Your task to perform on an android device: Empty the shopping cart on bestbuy. Search for "energizer triple a" on bestbuy, select the first entry, add it to the cart, then select checkout. Image 0: 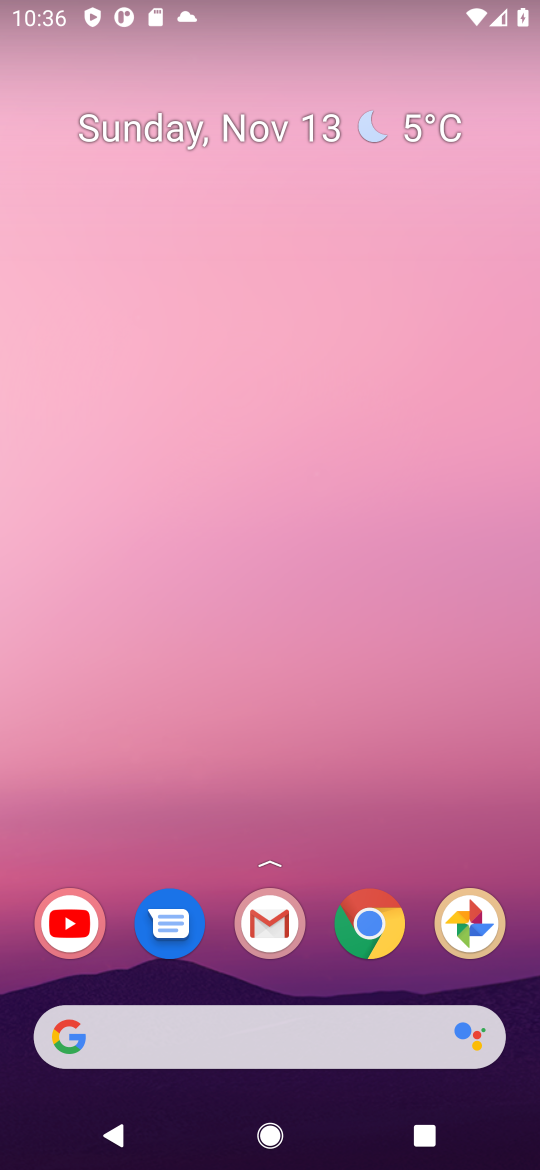
Step 0: click (384, 928)
Your task to perform on an android device: Empty the shopping cart on bestbuy. Search for "energizer triple a" on bestbuy, select the first entry, add it to the cart, then select checkout. Image 1: 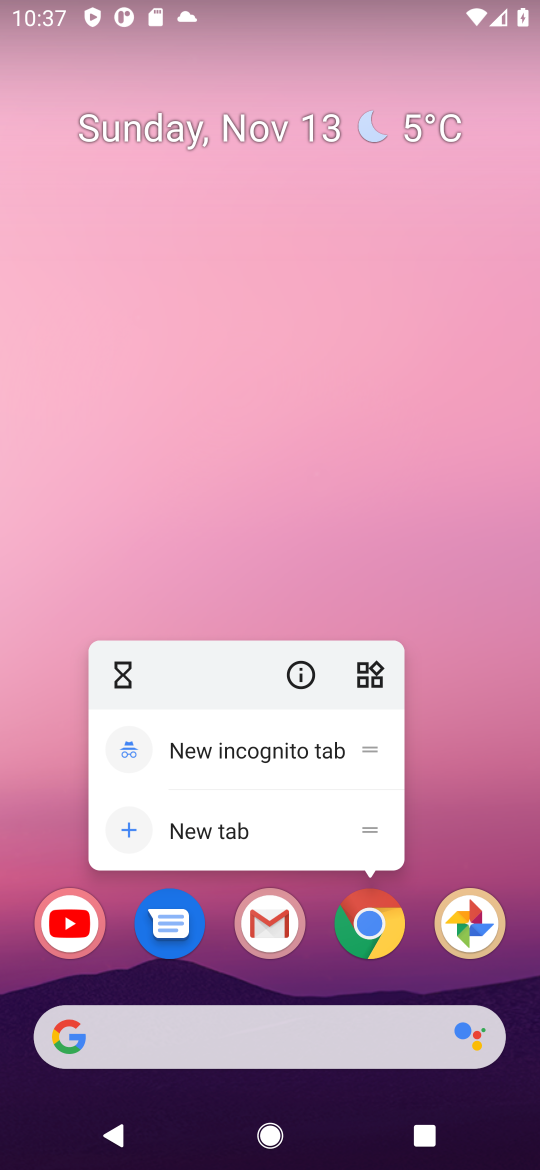
Step 1: click (359, 935)
Your task to perform on an android device: Empty the shopping cart on bestbuy. Search for "energizer triple a" on bestbuy, select the first entry, add it to the cart, then select checkout. Image 2: 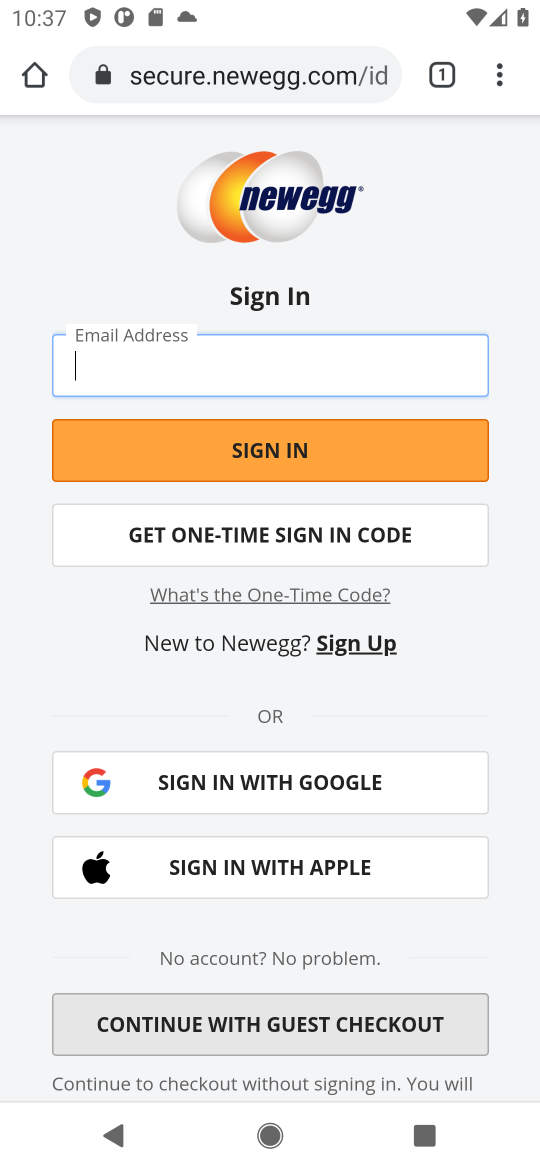
Step 2: click (250, 92)
Your task to perform on an android device: Empty the shopping cart on bestbuy. Search for "energizer triple a" on bestbuy, select the first entry, add it to the cart, then select checkout. Image 3: 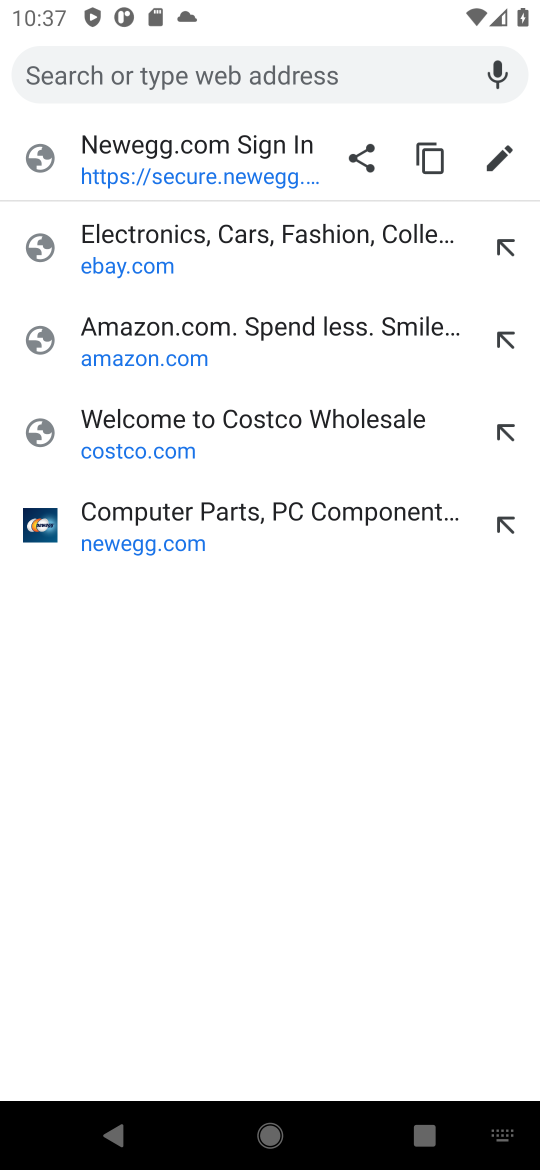
Step 3: type "bestbuy"
Your task to perform on an android device: Empty the shopping cart on bestbuy. Search for "energizer triple a" on bestbuy, select the first entry, add it to the cart, then select checkout. Image 4: 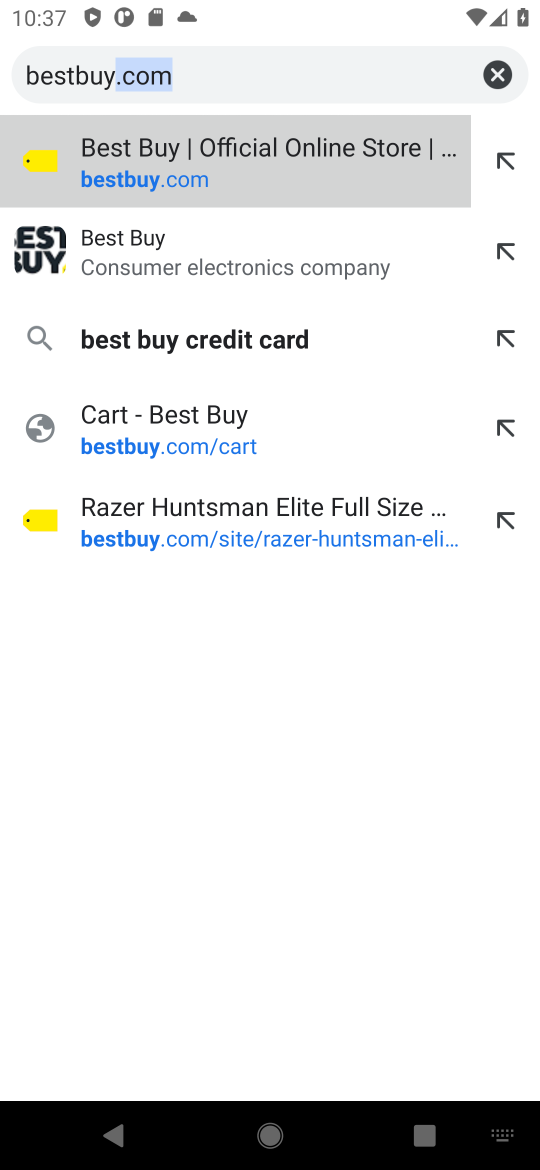
Step 4: click (181, 174)
Your task to perform on an android device: Empty the shopping cart on bestbuy. Search for "energizer triple a" on bestbuy, select the first entry, add it to the cart, then select checkout. Image 5: 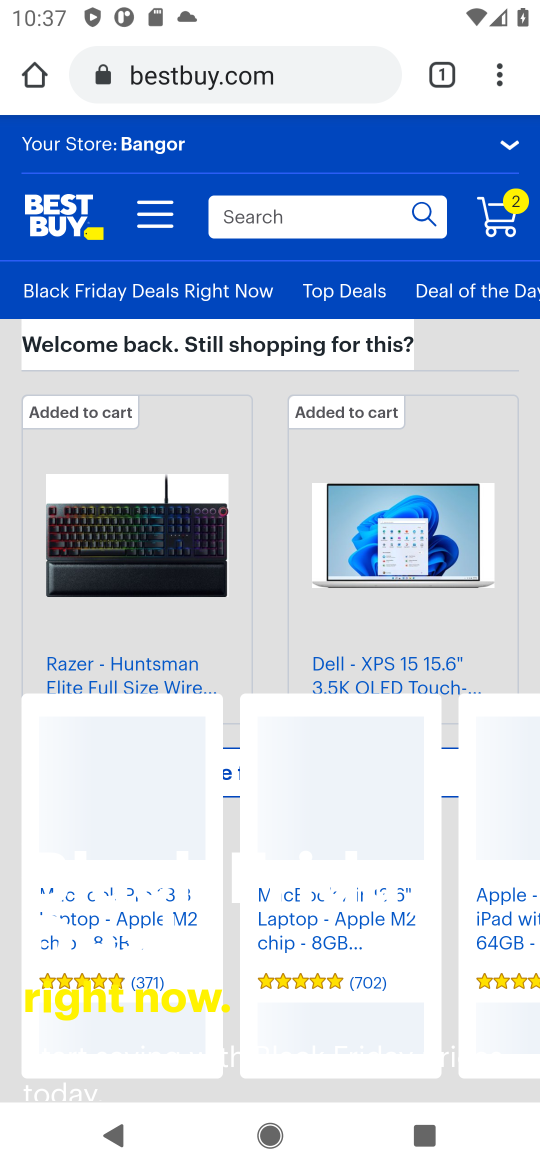
Step 5: click (509, 226)
Your task to perform on an android device: Empty the shopping cart on bestbuy. Search for "energizer triple a" on bestbuy, select the first entry, add it to the cart, then select checkout. Image 6: 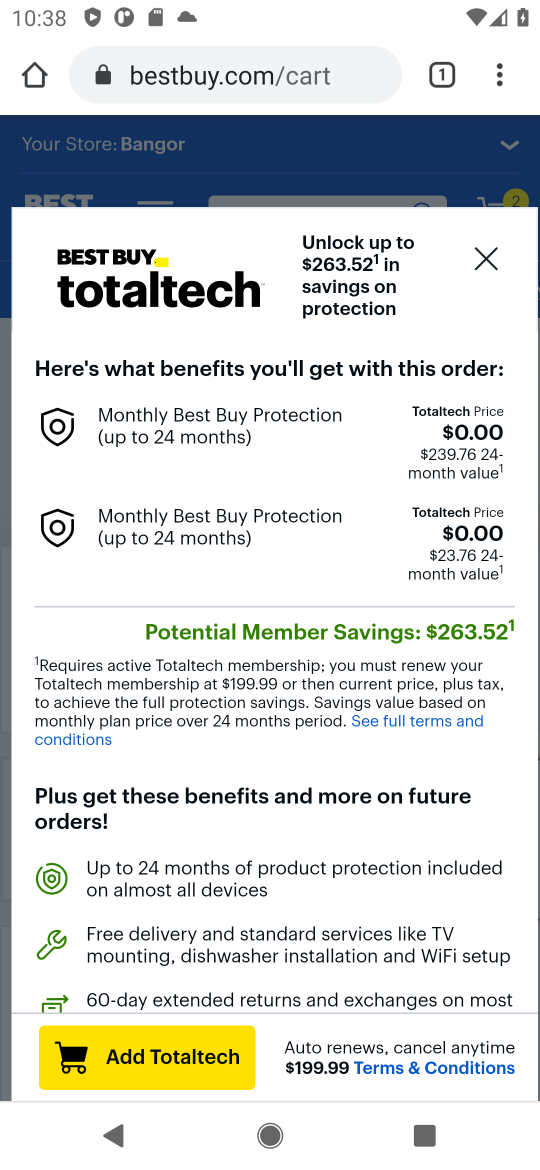
Step 6: click (146, 1058)
Your task to perform on an android device: Empty the shopping cart on bestbuy. Search for "energizer triple a" on bestbuy, select the first entry, add it to the cart, then select checkout. Image 7: 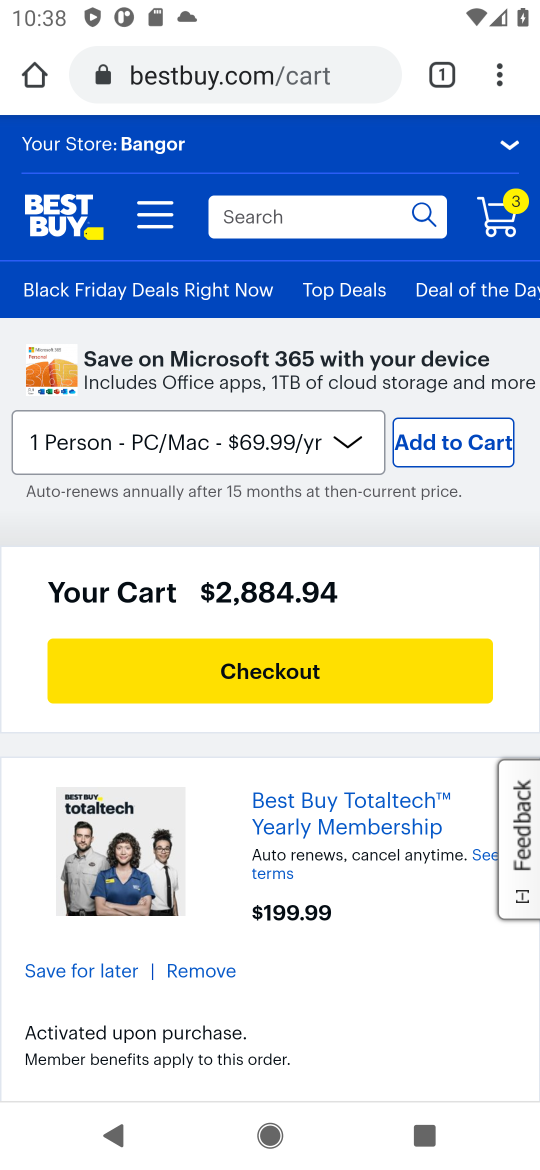
Step 7: click (498, 231)
Your task to perform on an android device: Empty the shopping cart on bestbuy. Search for "energizer triple a" on bestbuy, select the first entry, add it to the cart, then select checkout. Image 8: 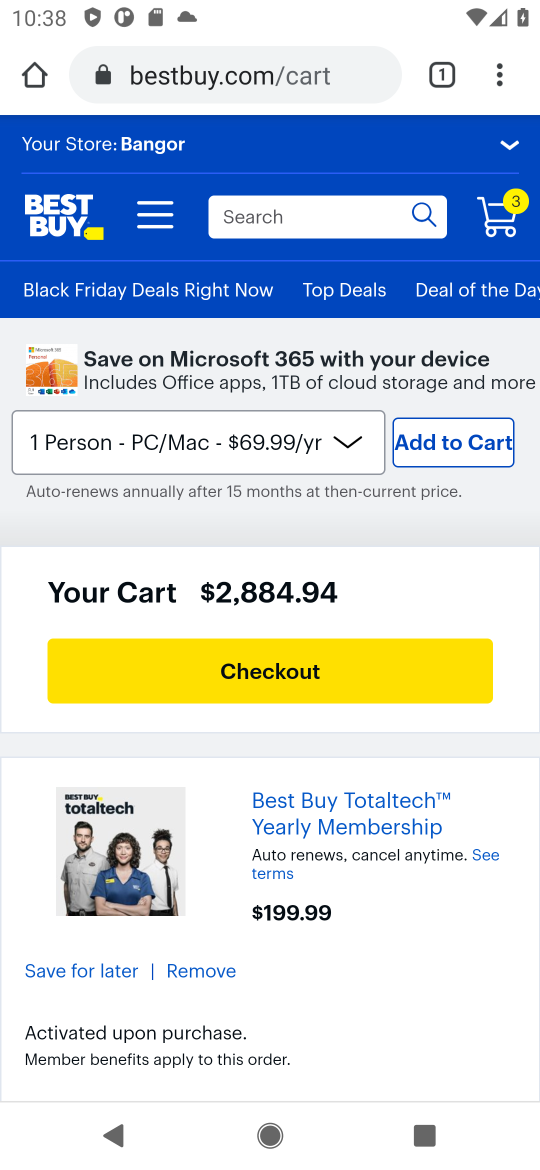
Step 8: drag from (338, 866) to (338, 471)
Your task to perform on an android device: Empty the shopping cart on bestbuy. Search for "energizer triple a" on bestbuy, select the first entry, add it to the cart, then select checkout. Image 9: 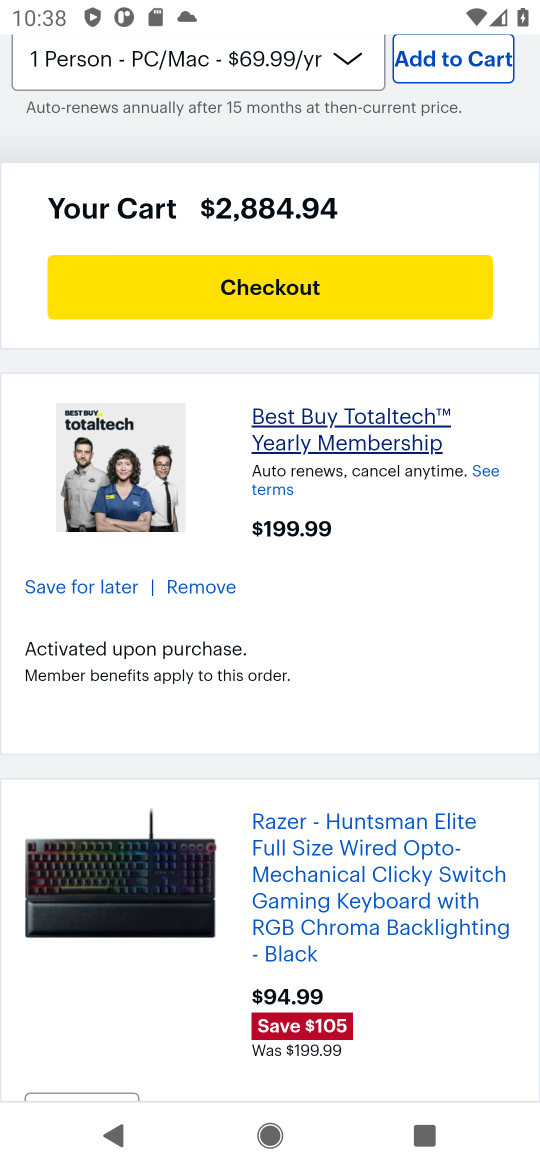
Step 9: click (213, 587)
Your task to perform on an android device: Empty the shopping cart on bestbuy. Search for "energizer triple a" on bestbuy, select the first entry, add it to the cart, then select checkout. Image 10: 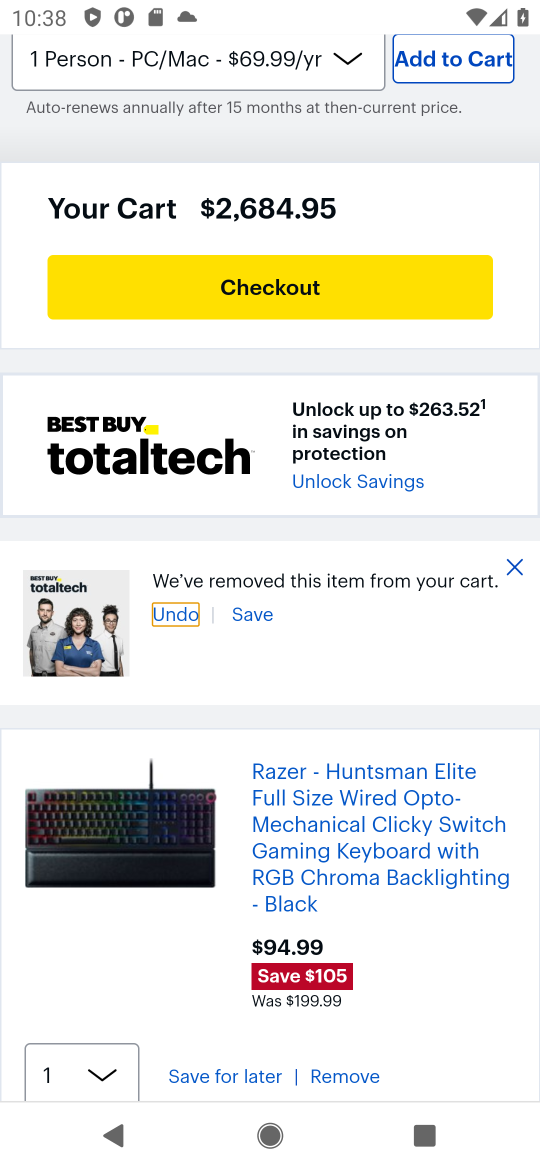
Step 10: drag from (247, 515) to (292, 324)
Your task to perform on an android device: Empty the shopping cart on bestbuy. Search for "energizer triple a" on bestbuy, select the first entry, add it to the cart, then select checkout. Image 11: 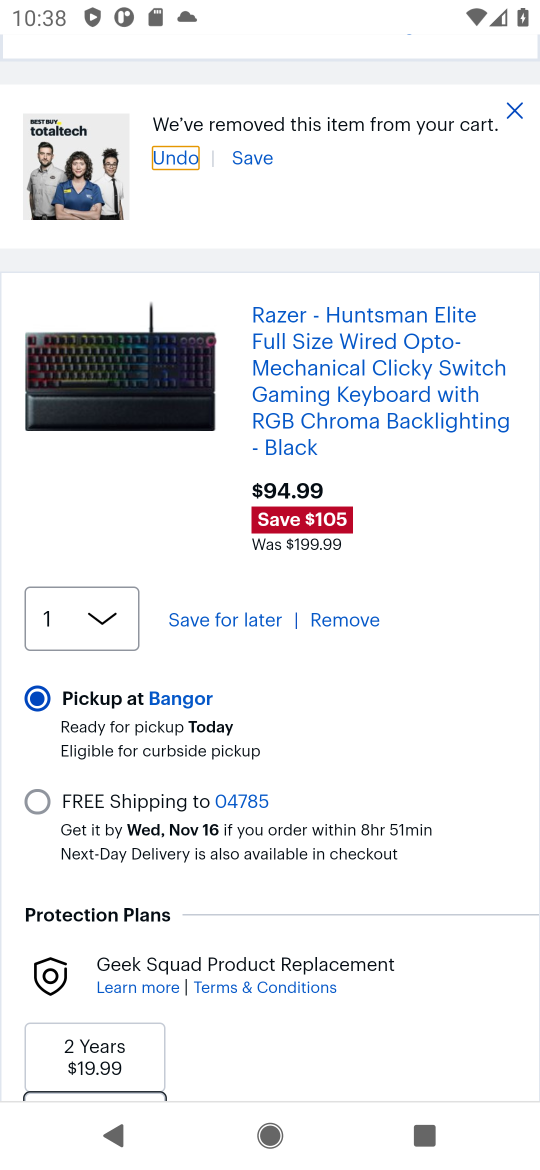
Step 11: click (328, 626)
Your task to perform on an android device: Empty the shopping cart on bestbuy. Search for "energizer triple a" on bestbuy, select the first entry, add it to the cart, then select checkout. Image 12: 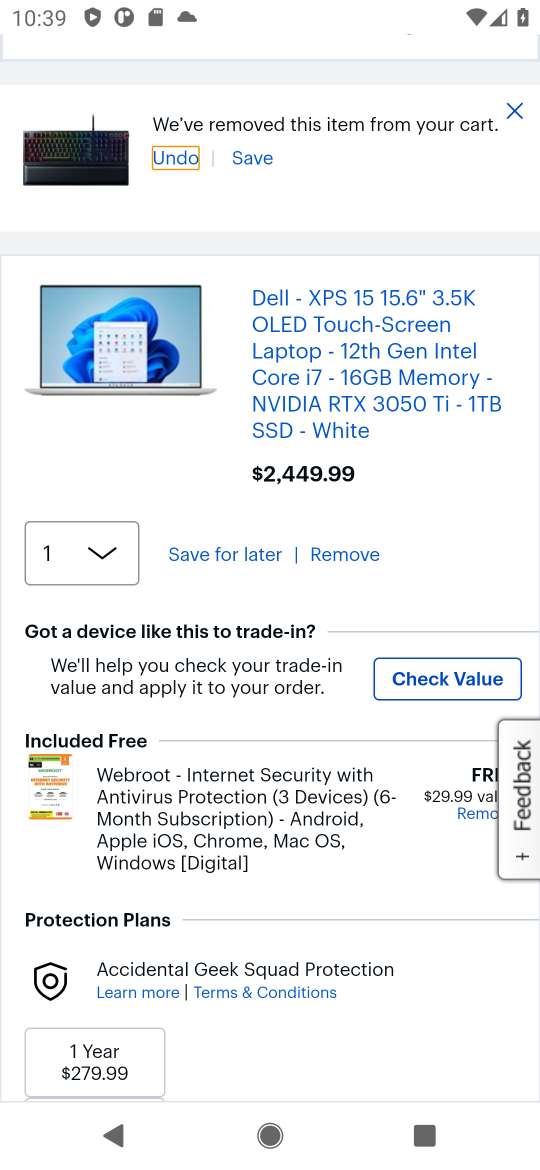
Step 12: click (334, 548)
Your task to perform on an android device: Empty the shopping cart on bestbuy. Search for "energizer triple a" on bestbuy, select the first entry, add it to the cart, then select checkout. Image 13: 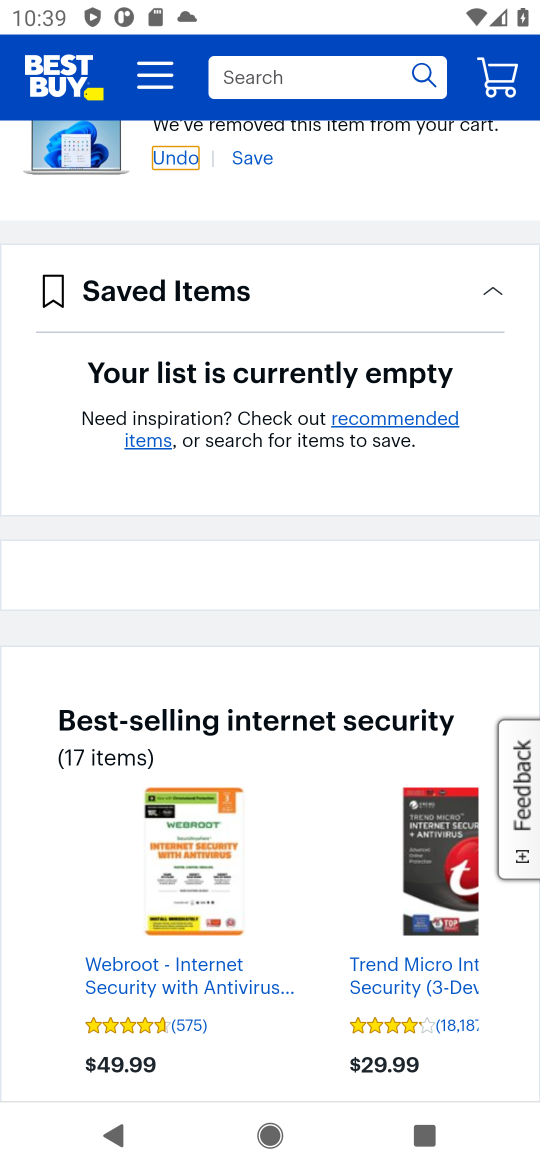
Step 13: click (276, 73)
Your task to perform on an android device: Empty the shopping cart on bestbuy. Search for "energizer triple a" on bestbuy, select the first entry, add it to the cart, then select checkout. Image 14: 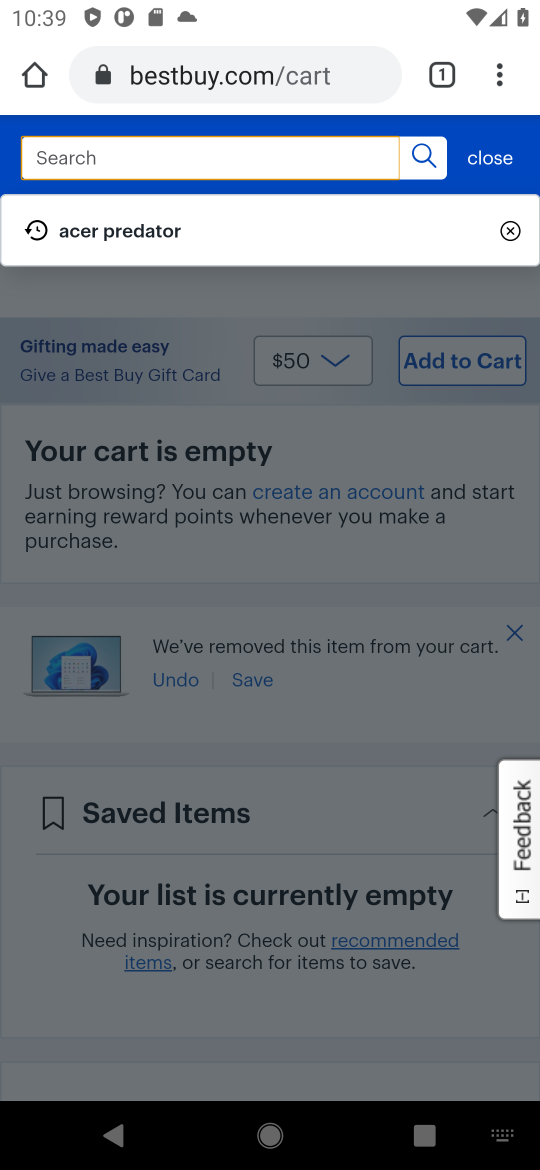
Step 14: type "energizer triple a"
Your task to perform on an android device: Empty the shopping cart on bestbuy. Search for "energizer triple a" on bestbuy, select the first entry, add it to the cart, then select checkout. Image 15: 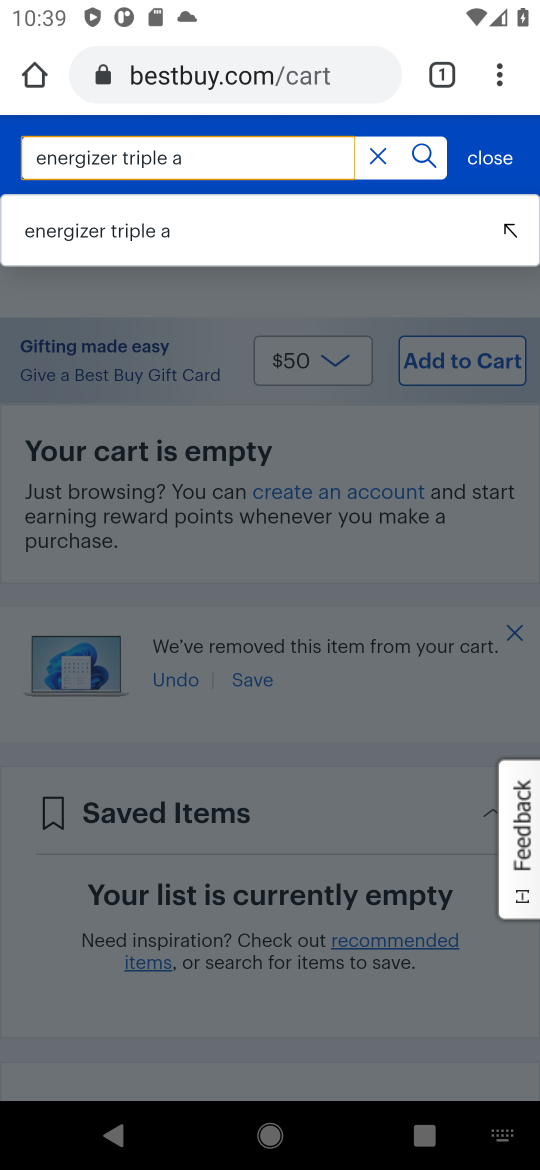
Step 15: press enter
Your task to perform on an android device: Empty the shopping cart on bestbuy. Search for "energizer triple a" on bestbuy, select the first entry, add it to the cart, then select checkout. Image 16: 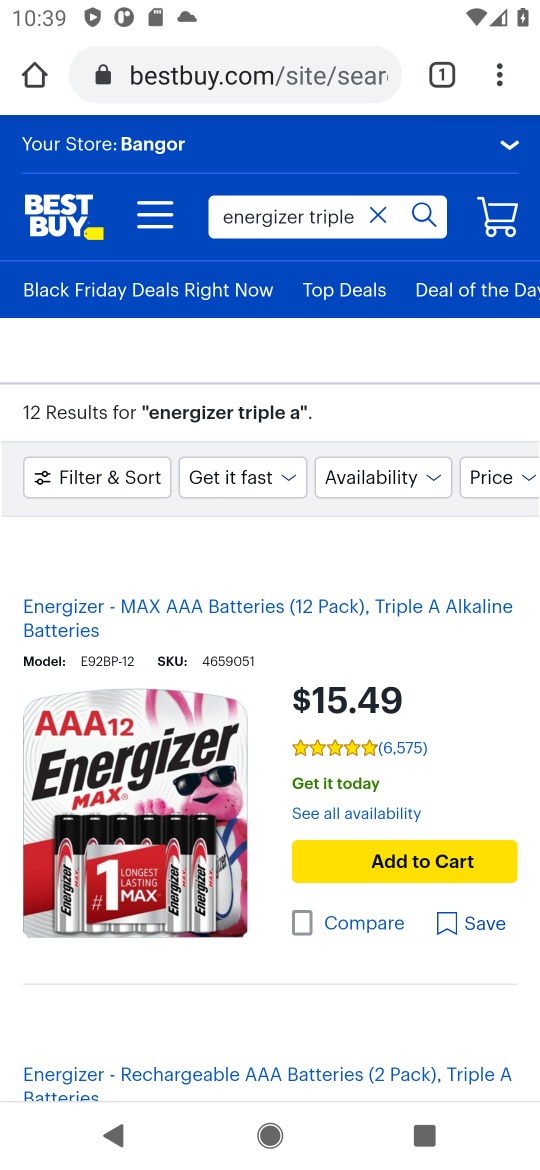
Step 16: click (146, 810)
Your task to perform on an android device: Empty the shopping cart on bestbuy. Search for "energizer triple a" on bestbuy, select the first entry, add it to the cart, then select checkout. Image 17: 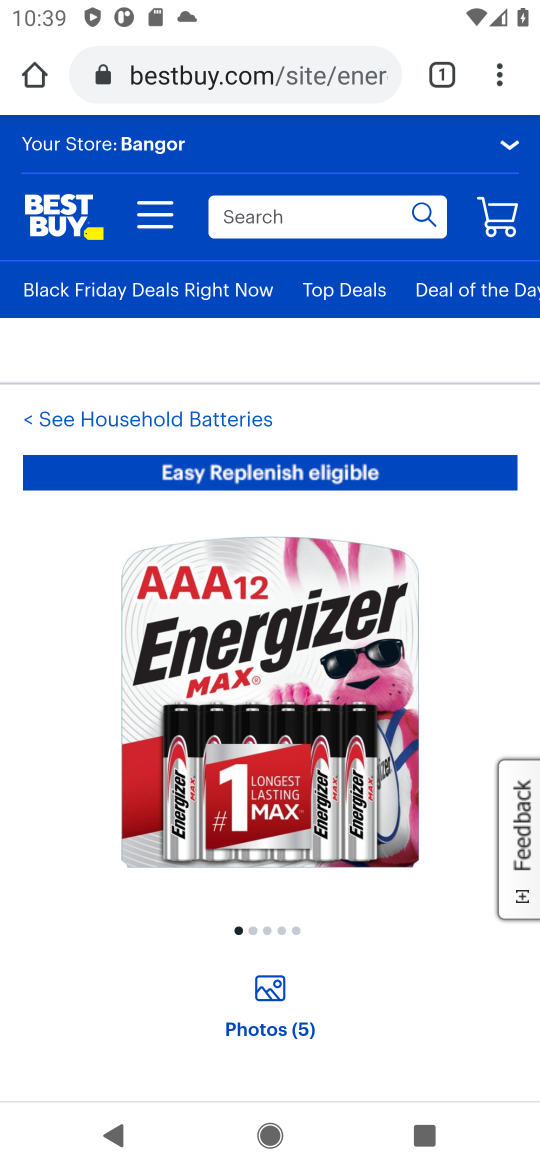
Step 17: drag from (373, 1034) to (531, 418)
Your task to perform on an android device: Empty the shopping cart on bestbuy. Search for "energizer triple a" on bestbuy, select the first entry, add it to the cart, then select checkout. Image 18: 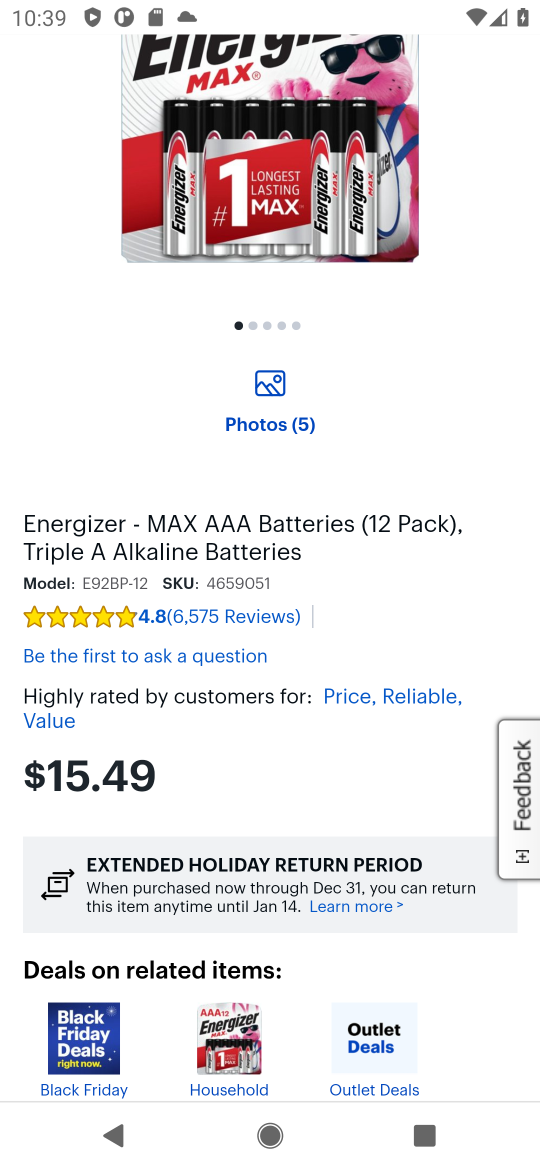
Step 18: drag from (362, 813) to (439, 223)
Your task to perform on an android device: Empty the shopping cart on bestbuy. Search for "energizer triple a" on bestbuy, select the first entry, add it to the cart, then select checkout. Image 19: 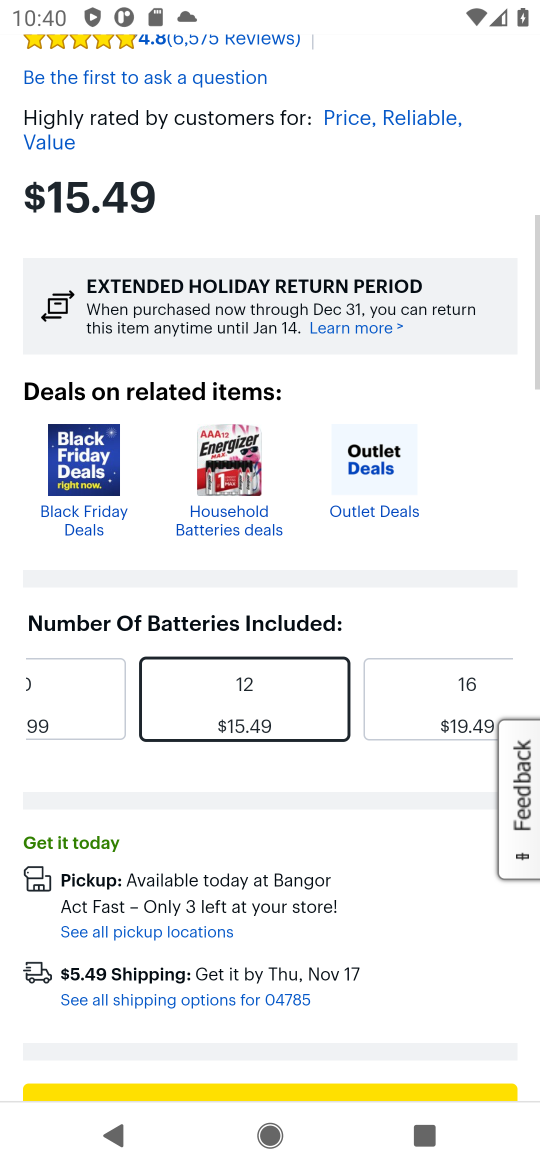
Step 19: drag from (372, 752) to (417, 462)
Your task to perform on an android device: Empty the shopping cart on bestbuy. Search for "energizer triple a" on bestbuy, select the first entry, add it to the cart, then select checkout. Image 20: 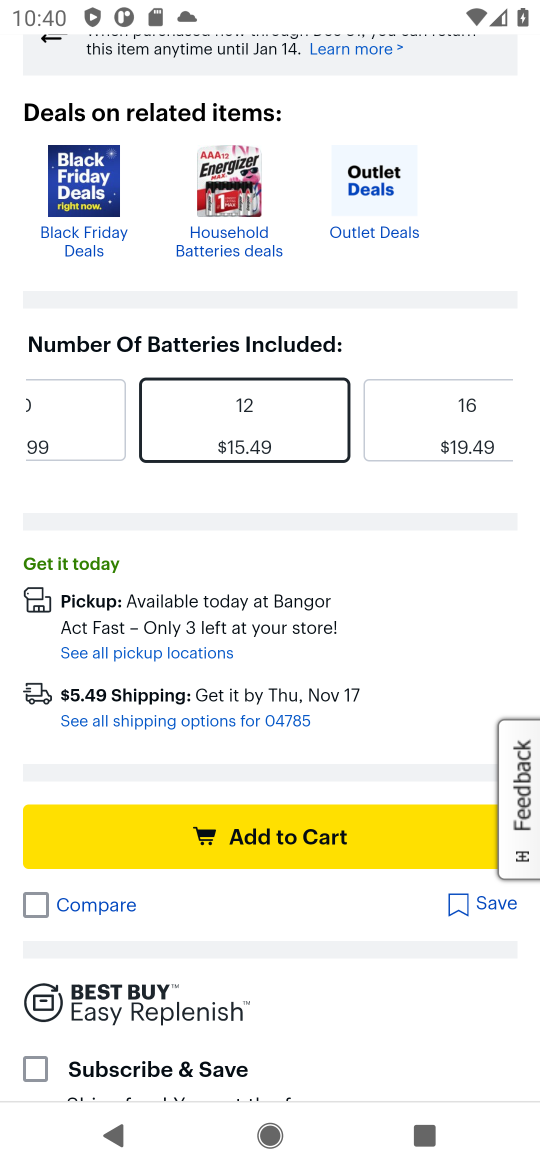
Step 20: click (293, 853)
Your task to perform on an android device: Empty the shopping cart on bestbuy. Search for "energizer triple a" on bestbuy, select the first entry, add it to the cart, then select checkout. Image 21: 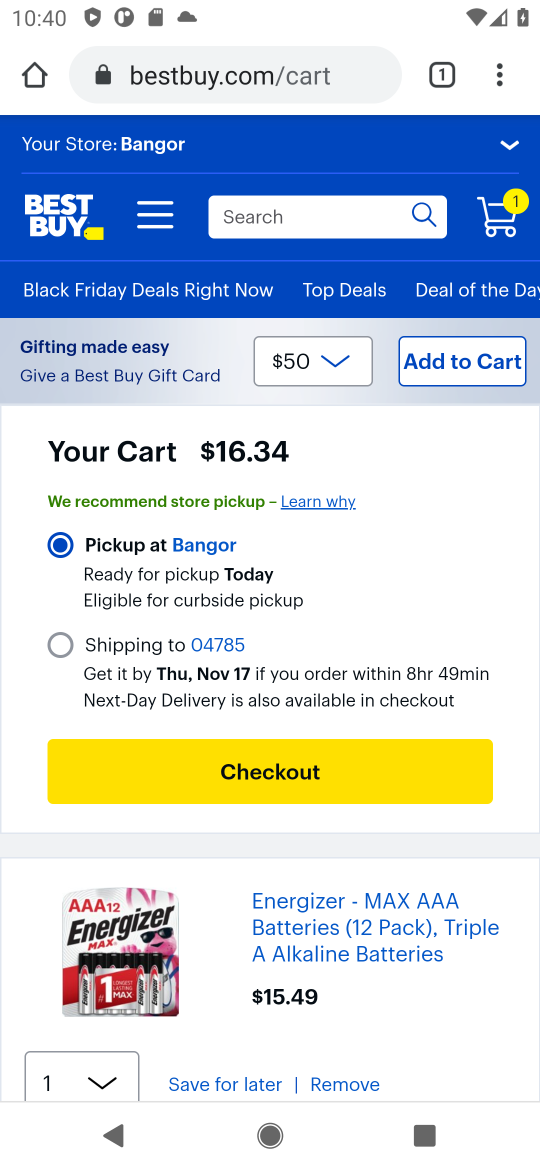
Step 21: click (256, 773)
Your task to perform on an android device: Empty the shopping cart on bestbuy. Search for "energizer triple a" on bestbuy, select the first entry, add it to the cart, then select checkout. Image 22: 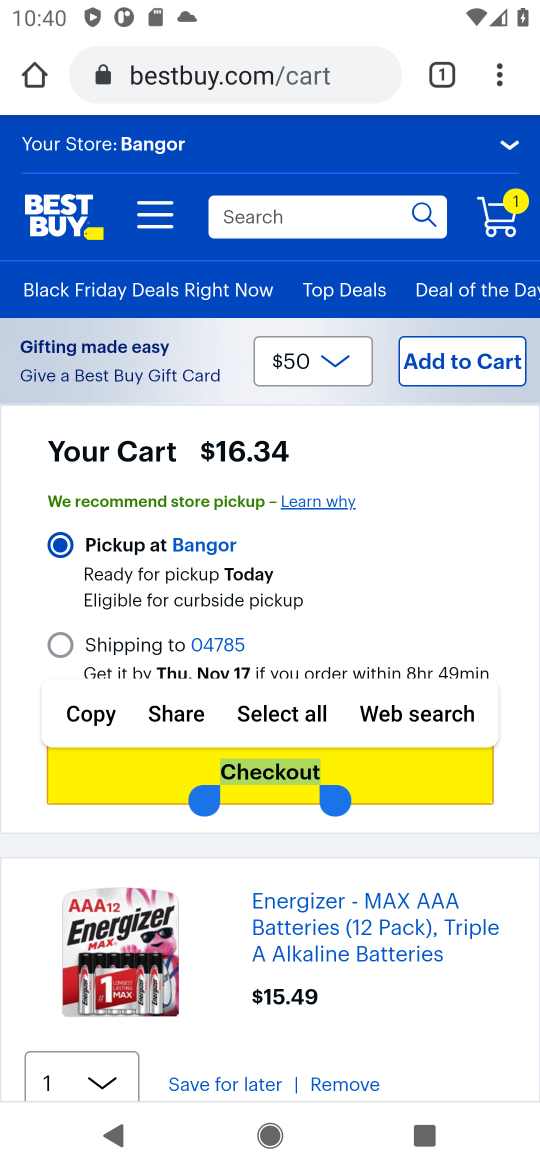
Step 22: click (250, 792)
Your task to perform on an android device: Empty the shopping cart on bestbuy. Search for "energizer triple a" on bestbuy, select the first entry, add it to the cart, then select checkout. Image 23: 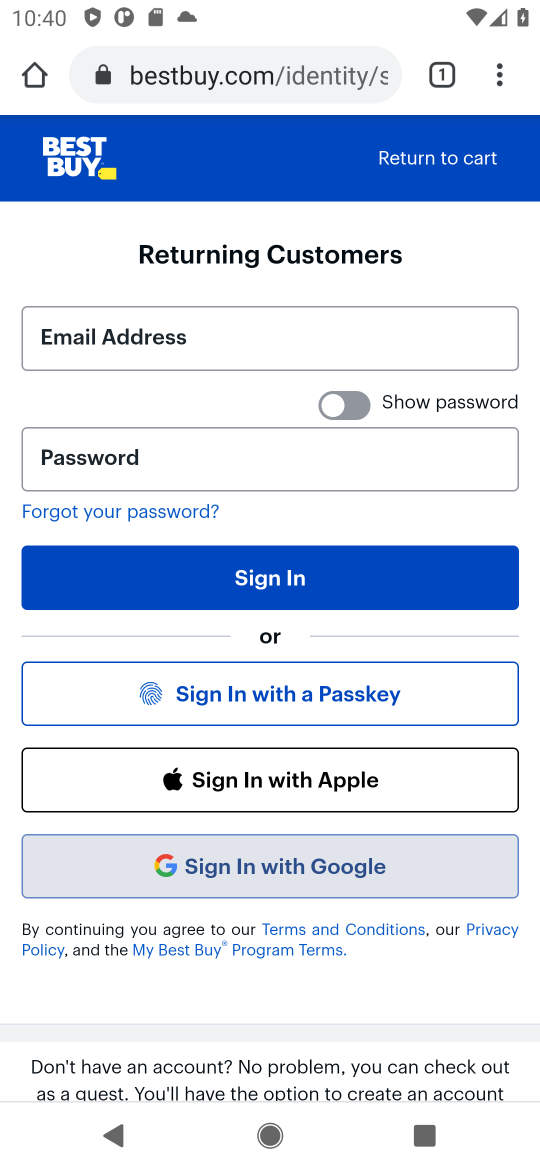
Step 23: task complete